Your task to perform on an android device: open chrome privacy settings Image 0: 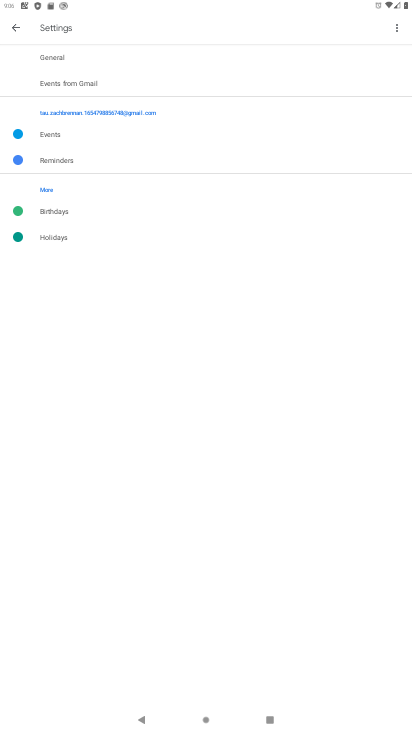
Step 0: press home button
Your task to perform on an android device: open chrome privacy settings Image 1: 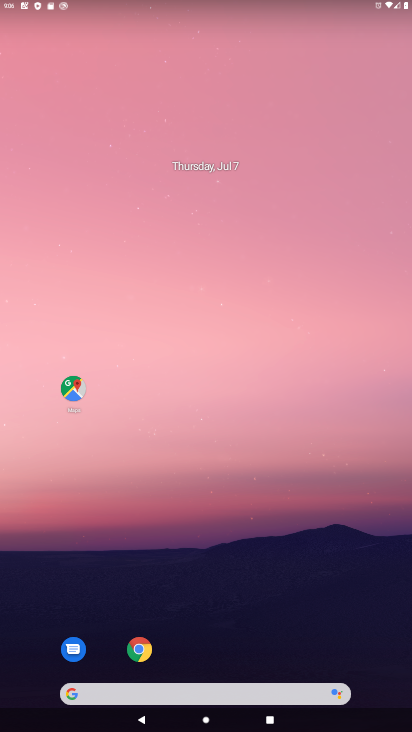
Step 1: drag from (191, 702) to (261, 135)
Your task to perform on an android device: open chrome privacy settings Image 2: 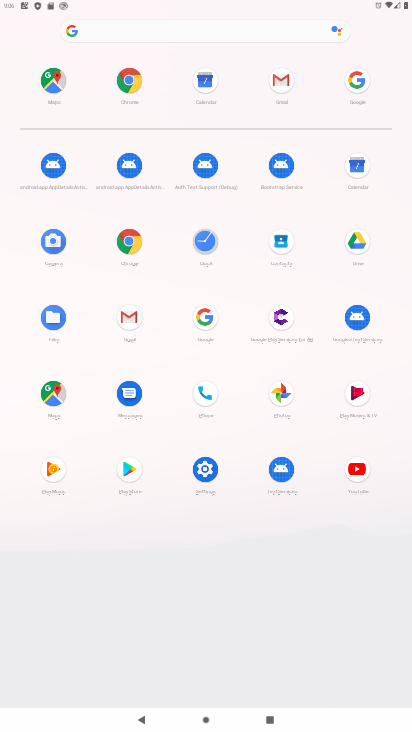
Step 2: click (133, 243)
Your task to perform on an android device: open chrome privacy settings Image 3: 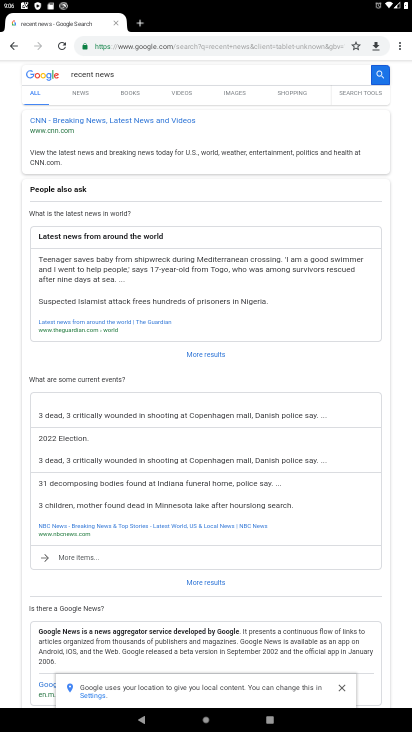
Step 3: drag from (397, 40) to (297, 280)
Your task to perform on an android device: open chrome privacy settings Image 4: 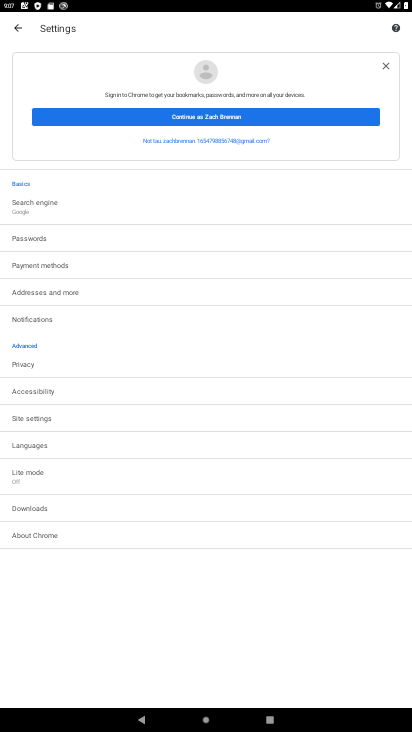
Step 4: click (70, 360)
Your task to perform on an android device: open chrome privacy settings Image 5: 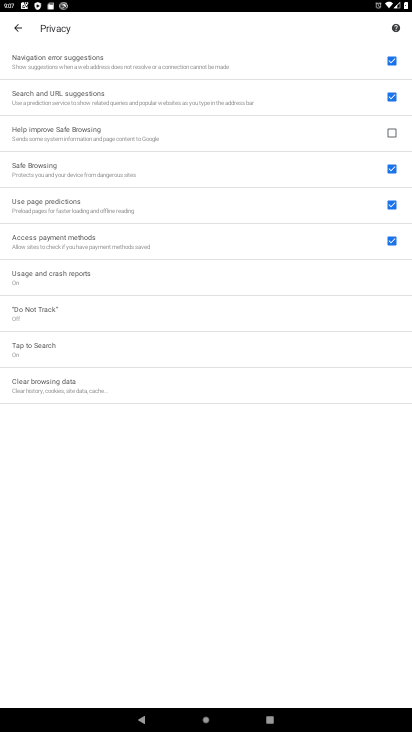
Step 5: task complete